Your task to perform on an android device: turn on notifications settings in the gmail app Image 0: 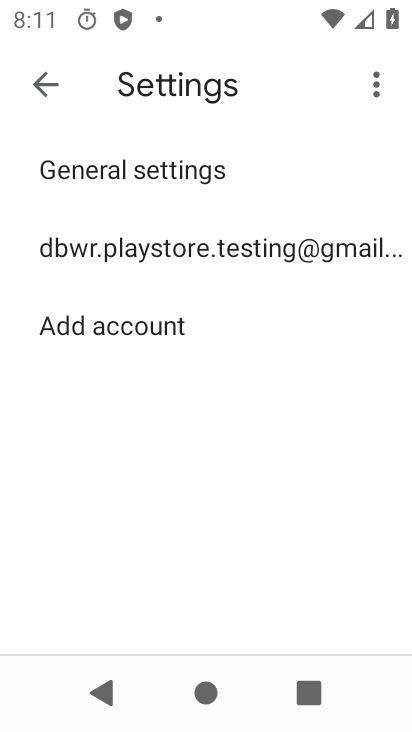
Step 0: click (146, 173)
Your task to perform on an android device: turn on notifications settings in the gmail app Image 1: 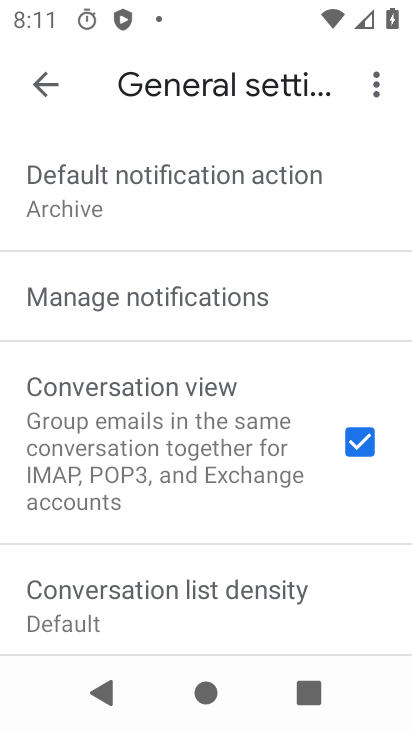
Step 1: click (79, 289)
Your task to perform on an android device: turn on notifications settings in the gmail app Image 2: 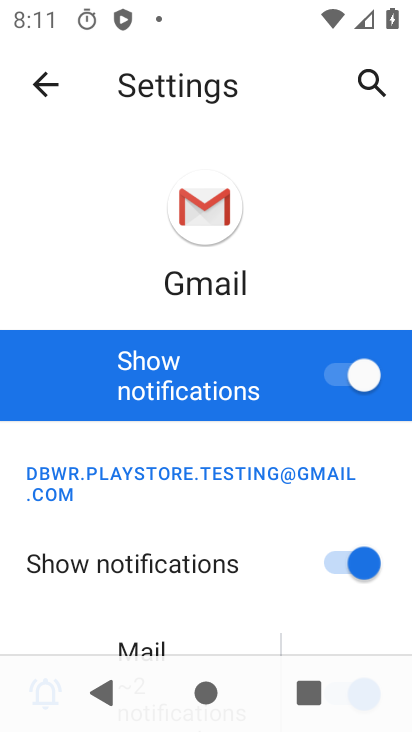
Step 2: task complete